Your task to perform on an android device: Open Google Chrome and open the bookmarks view Image 0: 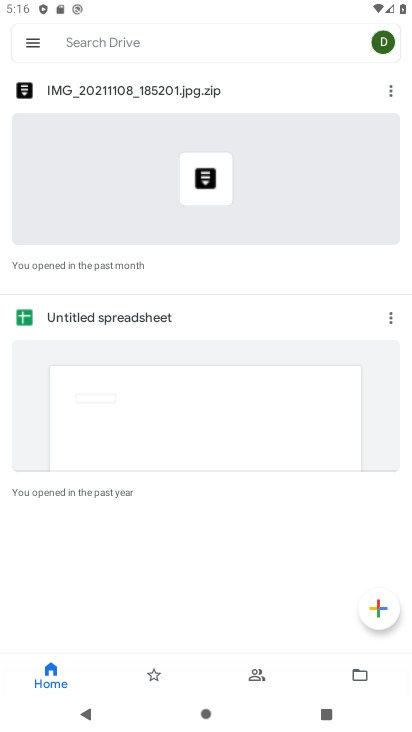
Step 0: press home button
Your task to perform on an android device: Open Google Chrome and open the bookmarks view Image 1: 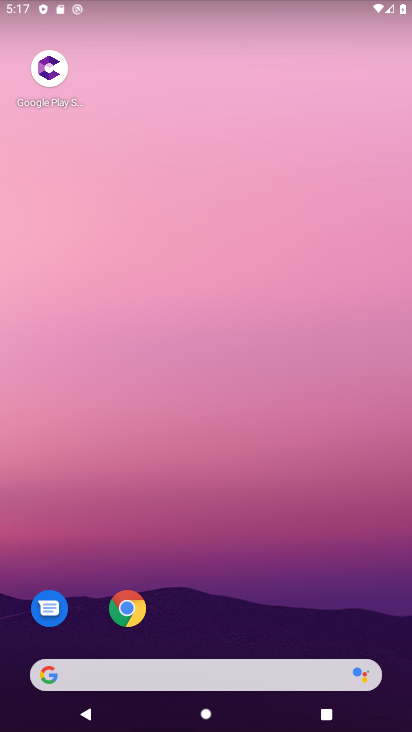
Step 1: click (123, 613)
Your task to perform on an android device: Open Google Chrome and open the bookmarks view Image 2: 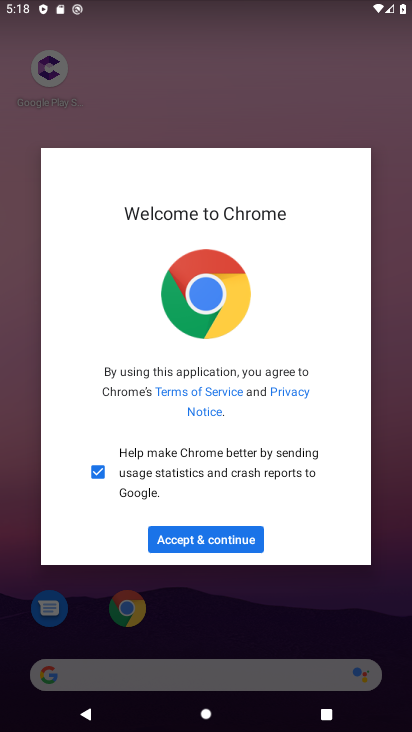
Step 2: click (201, 540)
Your task to perform on an android device: Open Google Chrome and open the bookmarks view Image 3: 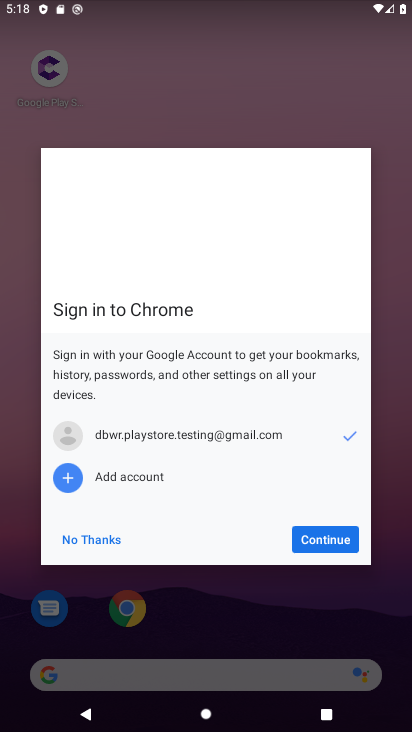
Step 3: click (347, 537)
Your task to perform on an android device: Open Google Chrome and open the bookmarks view Image 4: 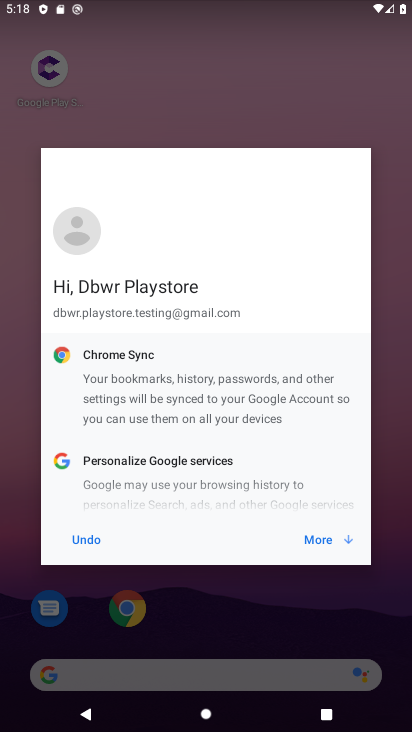
Step 4: click (347, 537)
Your task to perform on an android device: Open Google Chrome and open the bookmarks view Image 5: 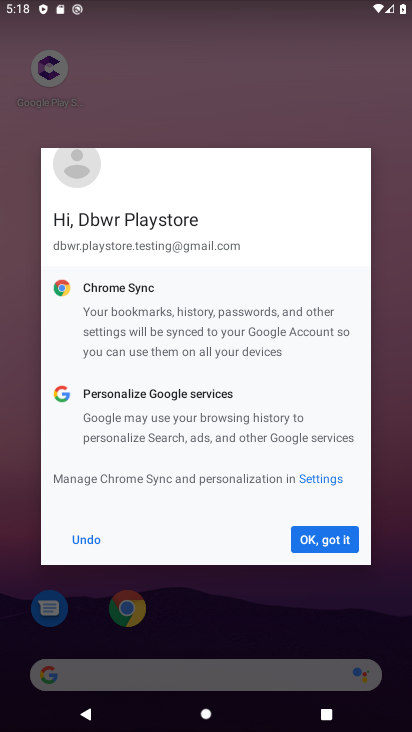
Step 5: click (341, 540)
Your task to perform on an android device: Open Google Chrome and open the bookmarks view Image 6: 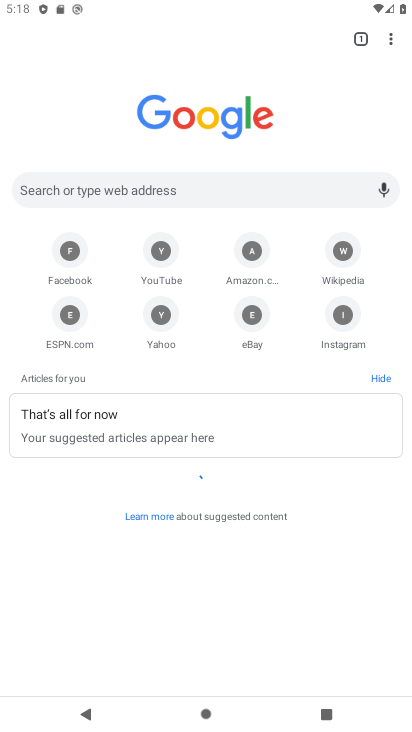
Step 6: task complete